Your task to perform on an android device: Check the news Image 0: 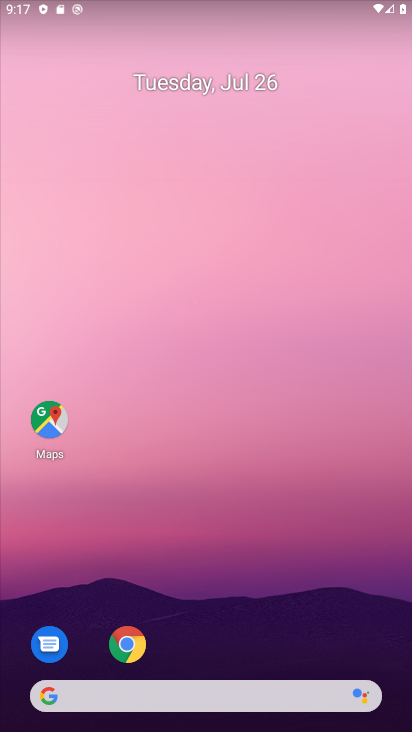
Step 0: click (204, 698)
Your task to perform on an android device: Check the news Image 1: 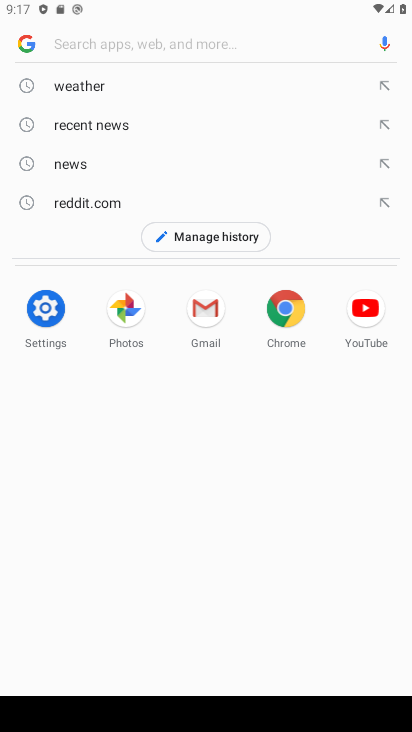
Step 1: click (76, 170)
Your task to perform on an android device: Check the news Image 2: 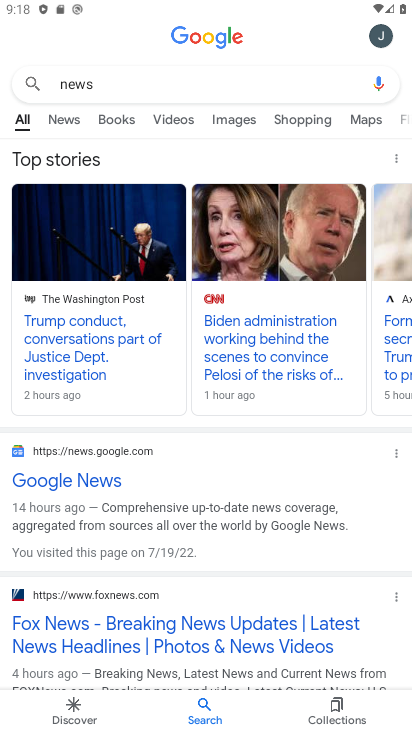
Step 2: task complete